Your task to perform on an android device: Open Google Chrome Image 0: 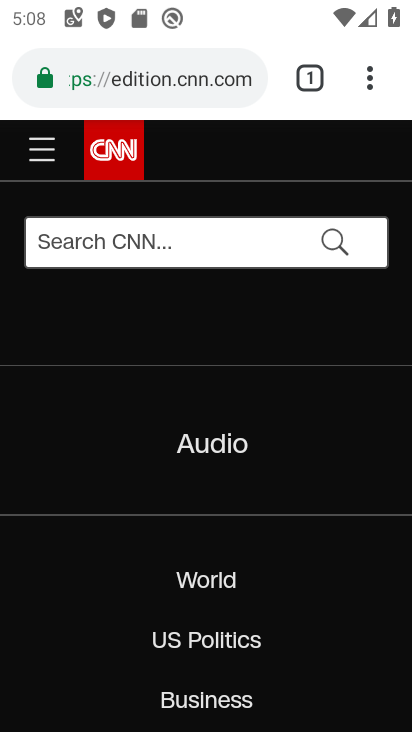
Step 0: press home button
Your task to perform on an android device: Open Google Chrome Image 1: 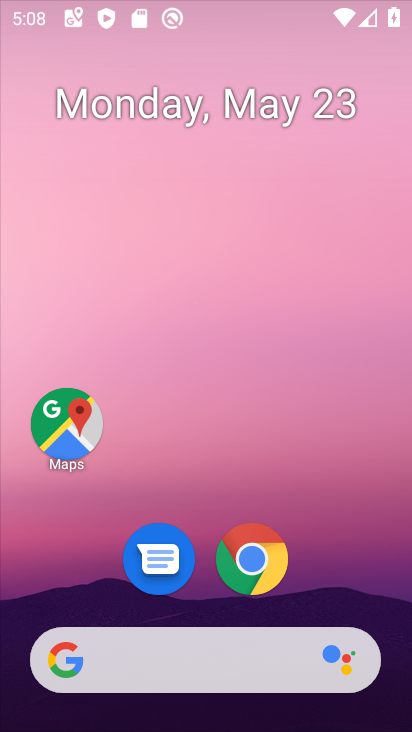
Step 1: drag from (253, 631) to (295, 70)
Your task to perform on an android device: Open Google Chrome Image 2: 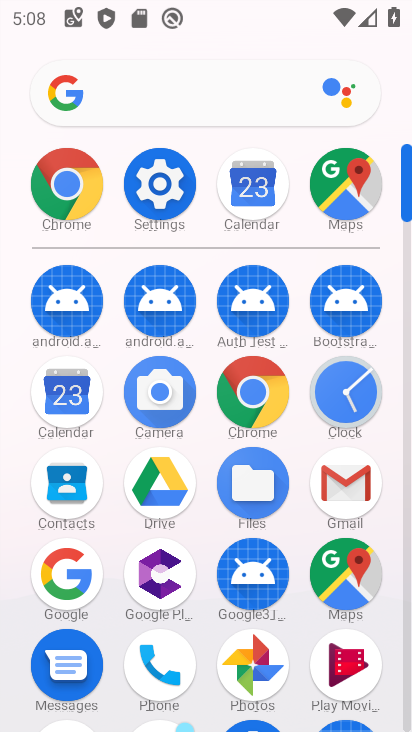
Step 2: click (269, 397)
Your task to perform on an android device: Open Google Chrome Image 3: 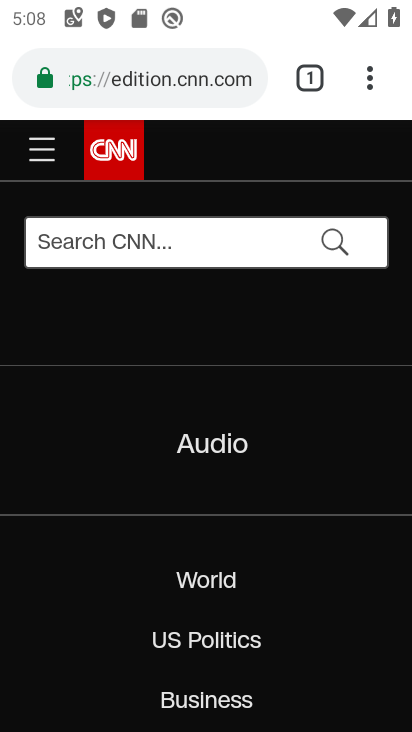
Step 3: task complete